Your task to perform on an android device: Open Wikipedia Image 0: 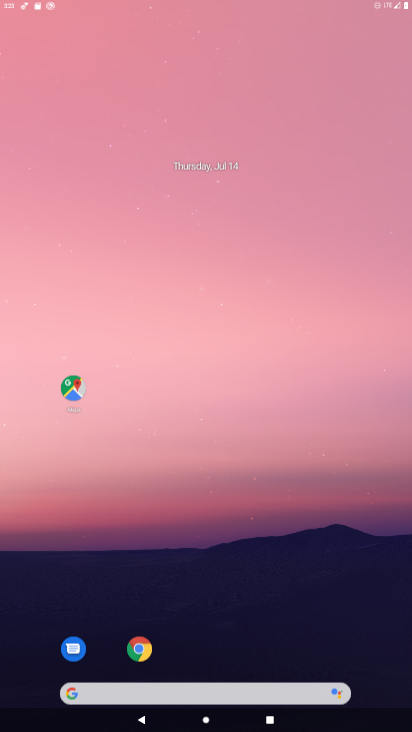
Step 0: click (364, 56)
Your task to perform on an android device: Open Wikipedia Image 1: 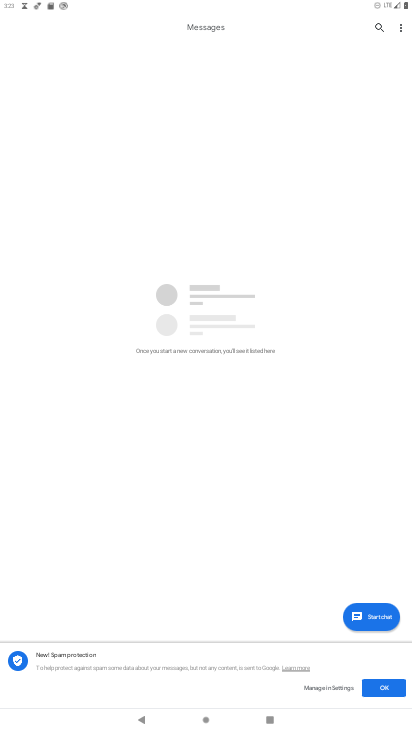
Step 1: press home button
Your task to perform on an android device: Open Wikipedia Image 2: 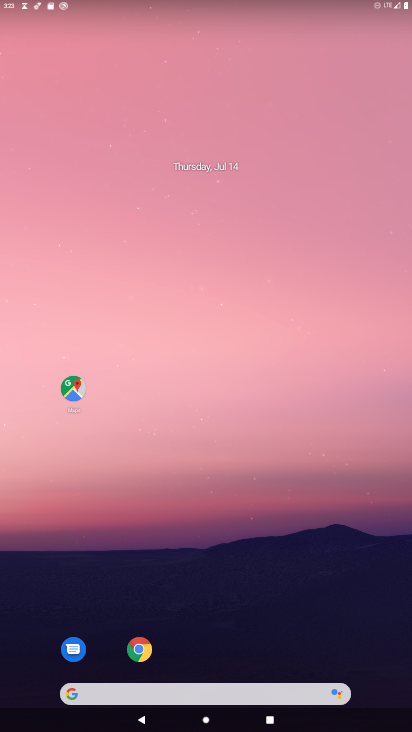
Step 2: drag from (249, 667) to (210, 7)
Your task to perform on an android device: Open Wikipedia Image 3: 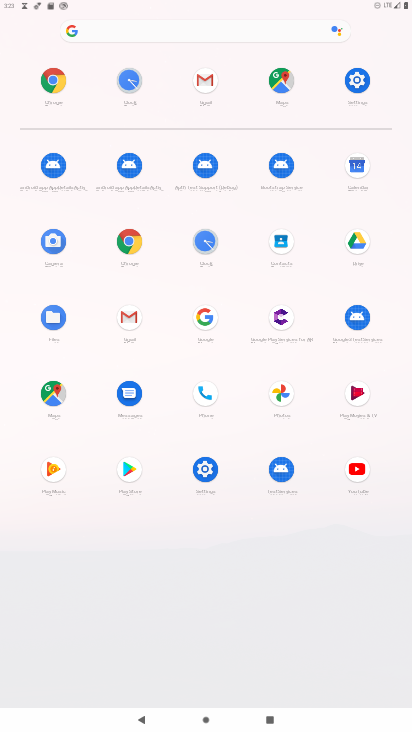
Step 3: click (135, 255)
Your task to perform on an android device: Open Wikipedia Image 4: 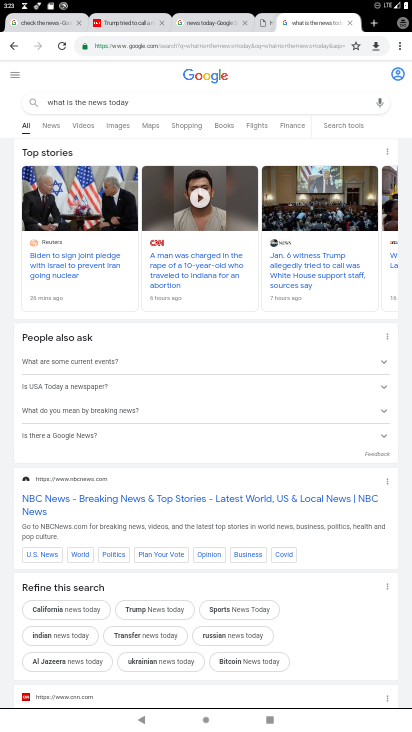
Step 4: drag from (398, 44) to (350, 45)
Your task to perform on an android device: Open Wikipedia Image 5: 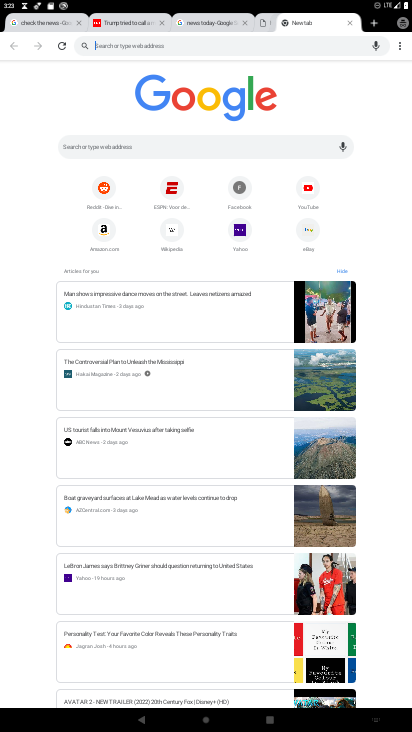
Step 5: click (171, 236)
Your task to perform on an android device: Open Wikipedia Image 6: 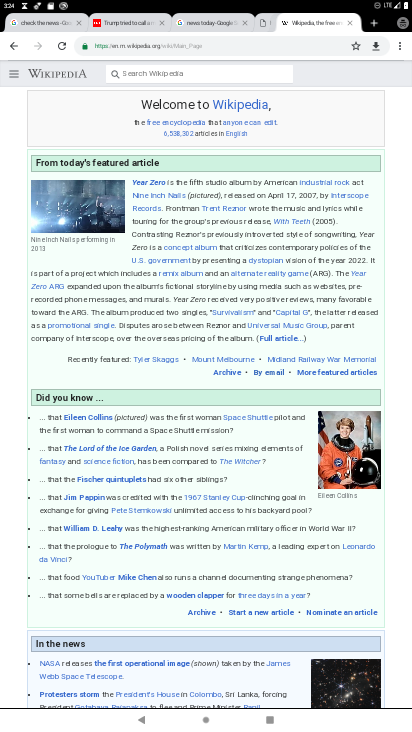
Step 6: task complete